Your task to perform on an android device: Show me productivity apps on the Play Store Image 0: 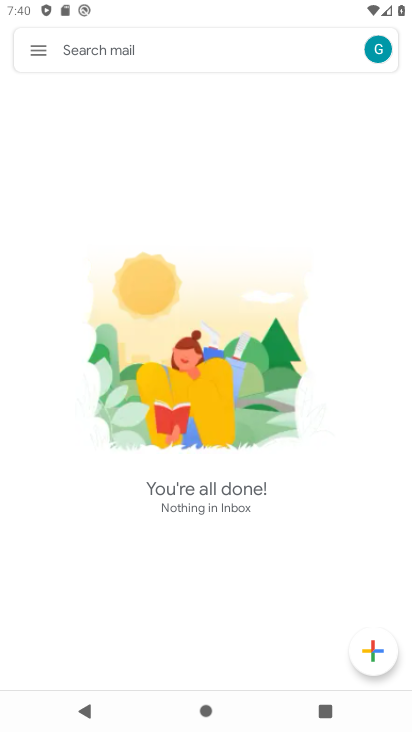
Step 0: press home button
Your task to perform on an android device: Show me productivity apps on the Play Store Image 1: 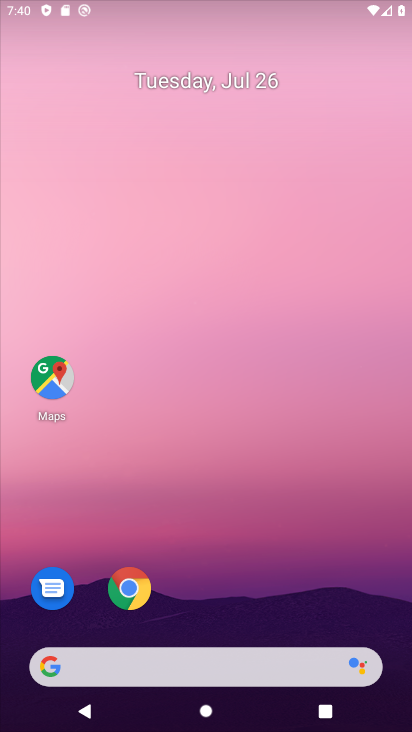
Step 1: drag from (274, 395) to (185, 0)
Your task to perform on an android device: Show me productivity apps on the Play Store Image 2: 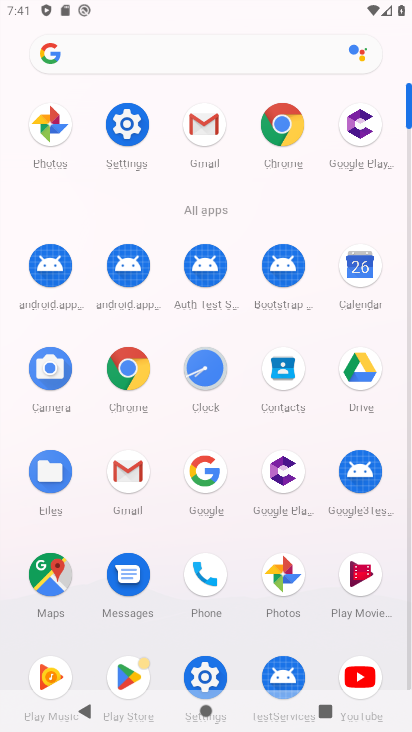
Step 2: drag from (321, 580) to (329, 212)
Your task to perform on an android device: Show me productivity apps on the Play Store Image 3: 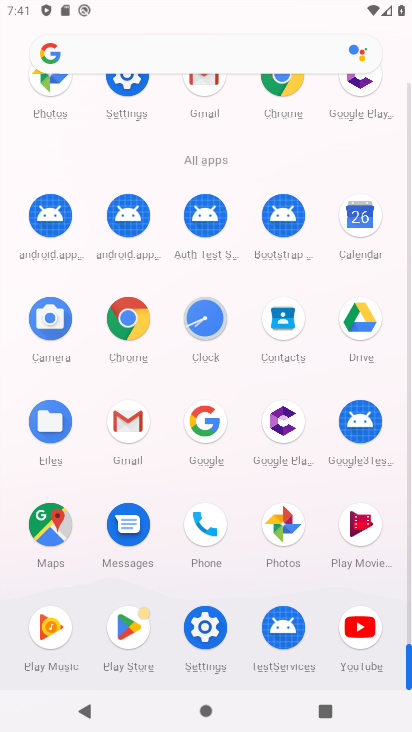
Step 3: drag from (246, 517) to (262, 259)
Your task to perform on an android device: Show me productivity apps on the Play Store Image 4: 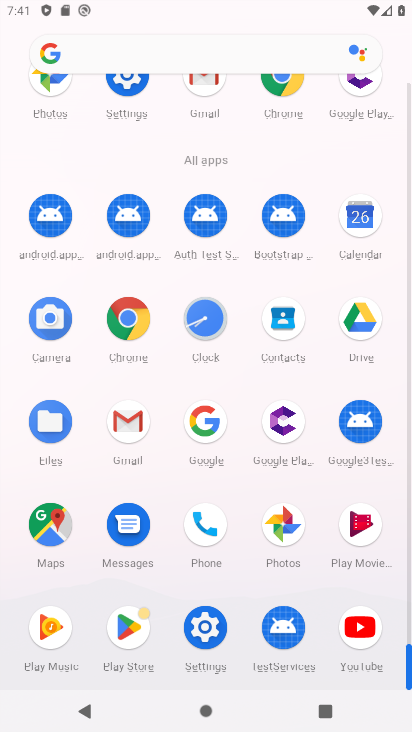
Step 4: click (137, 617)
Your task to perform on an android device: Show me productivity apps on the Play Store Image 5: 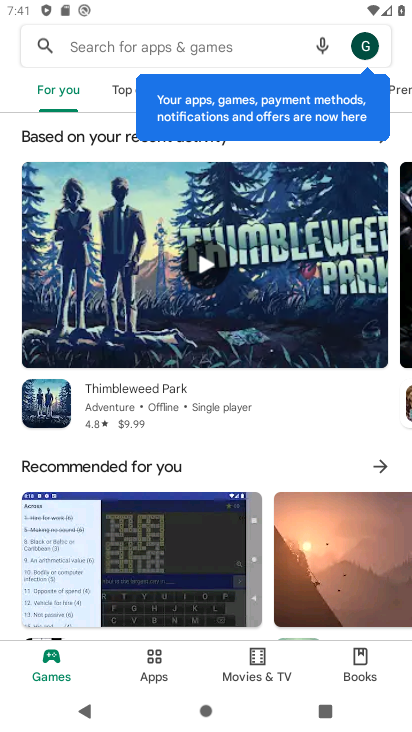
Step 5: click (144, 669)
Your task to perform on an android device: Show me productivity apps on the Play Store Image 6: 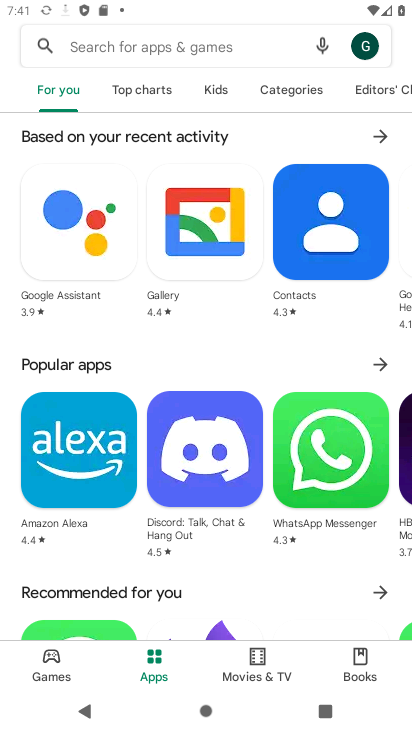
Step 6: task complete